Your task to perform on an android device: open chrome and create a bookmark for the current page Image 0: 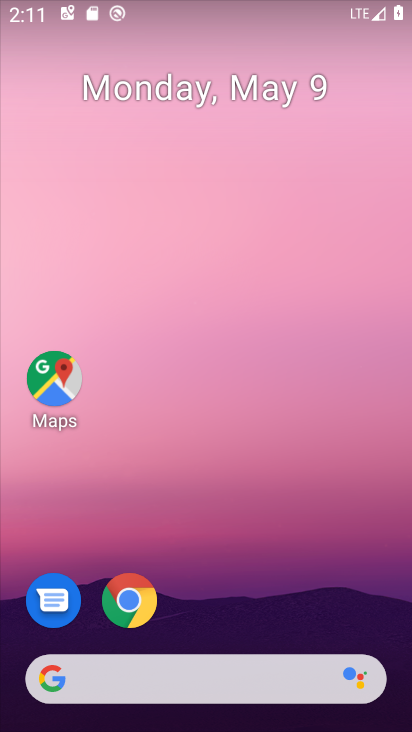
Step 0: click (134, 592)
Your task to perform on an android device: open chrome and create a bookmark for the current page Image 1: 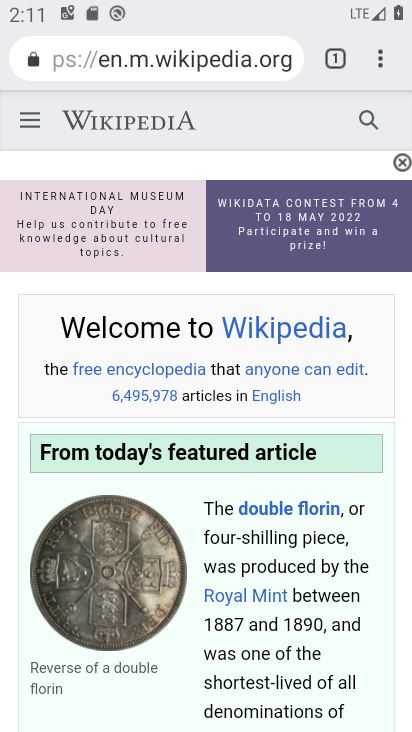
Step 1: click (385, 67)
Your task to perform on an android device: open chrome and create a bookmark for the current page Image 2: 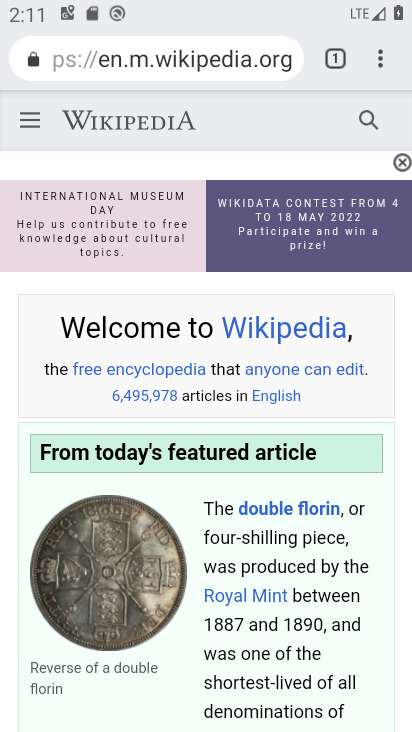
Step 2: click (372, 64)
Your task to perform on an android device: open chrome and create a bookmark for the current page Image 3: 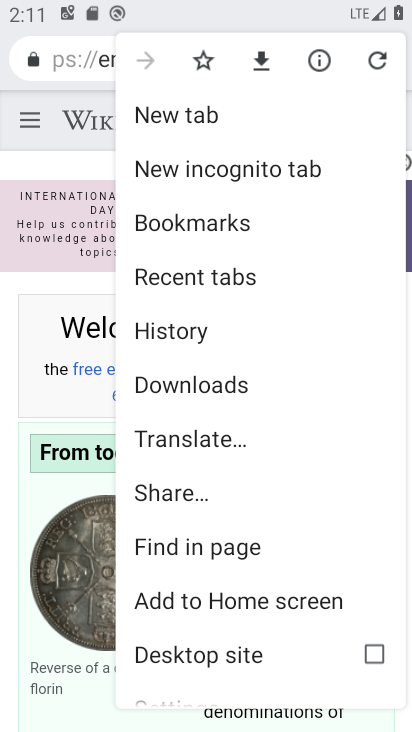
Step 3: click (207, 58)
Your task to perform on an android device: open chrome and create a bookmark for the current page Image 4: 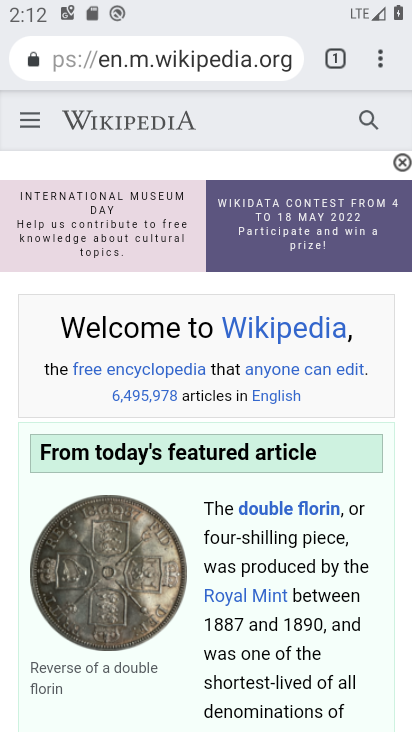
Step 4: task complete